Your task to perform on an android device: Search for Italian restaurants on Maps Image 0: 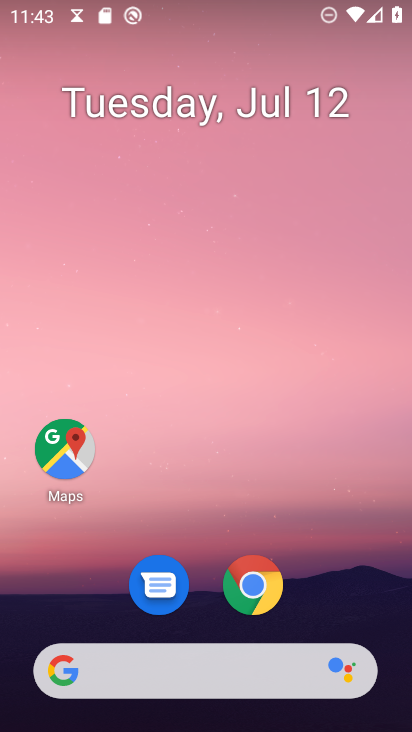
Step 0: click (65, 454)
Your task to perform on an android device: Search for Italian restaurants on Maps Image 1: 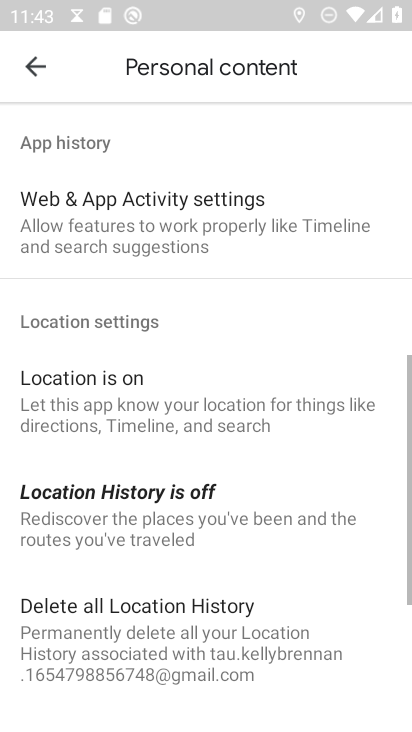
Step 1: click (41, 71)
Your task to perform on an android device: Search for Italian restaurants on Maps Image 2: 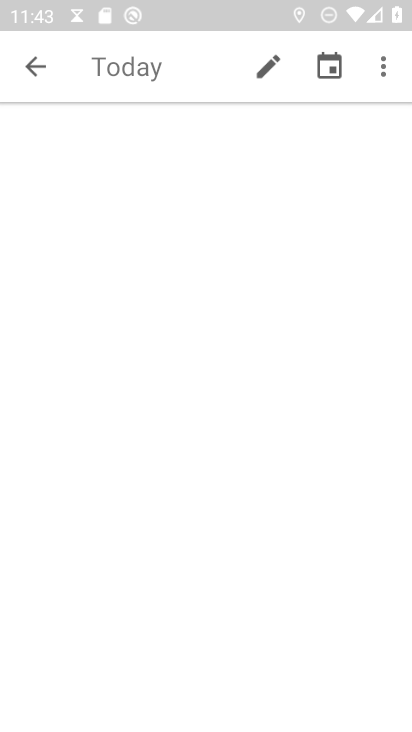
Step 2: click (38, 64)
Your task to perform on an android device: Search for Italian restaurants on Maps Image 3: 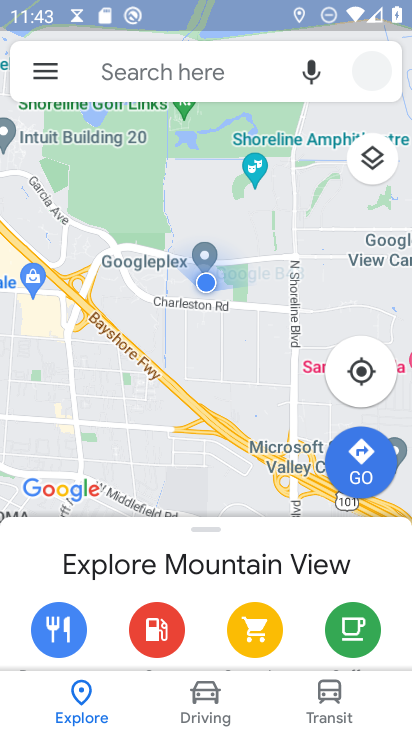
Step 3: click (124, 70)
Your task to perform on an android device: Search for Italian restaurants on Maps Image 4: 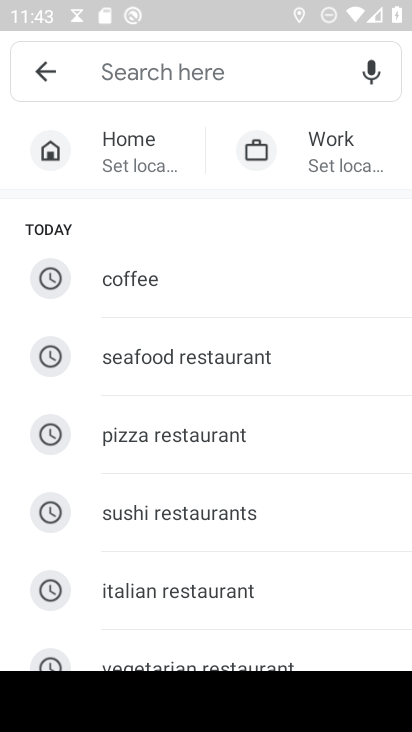
Step 4: click (209, 593)
Your task to perform on an android device: Search for Italian restaurants on Maps Image 5: 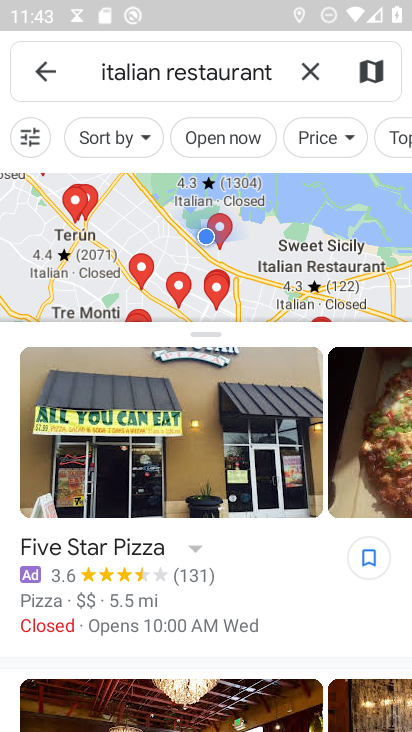
Step 5: task complete